Your task to perform on an android device: Open Google Maps and go to "Timeline" Image 0: 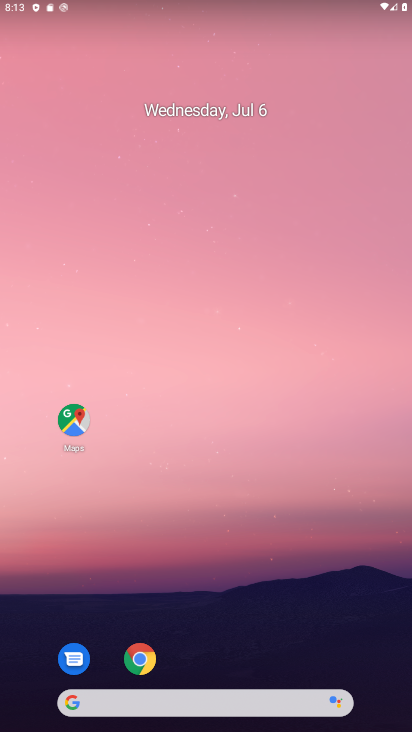
Step 0: drag from (215, 641) to (253, 124)
Your task to perform on an android device: Open Google Maps and go to "Timeline" Image 1: 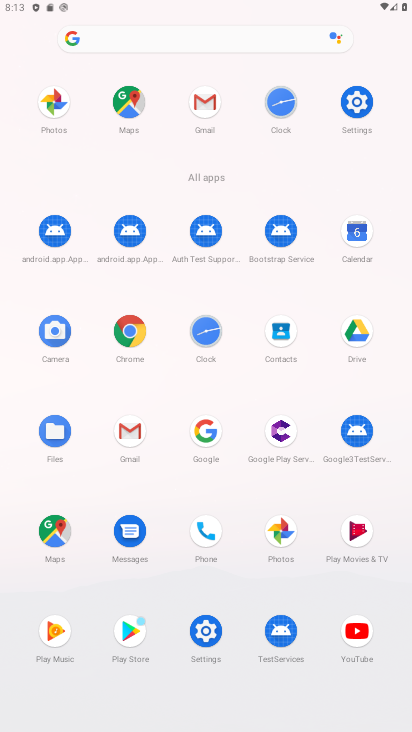
Step 1: click (51, 523)
Your task to perform on an android device: Open Google Maps and go to "Timeline" Image 2: 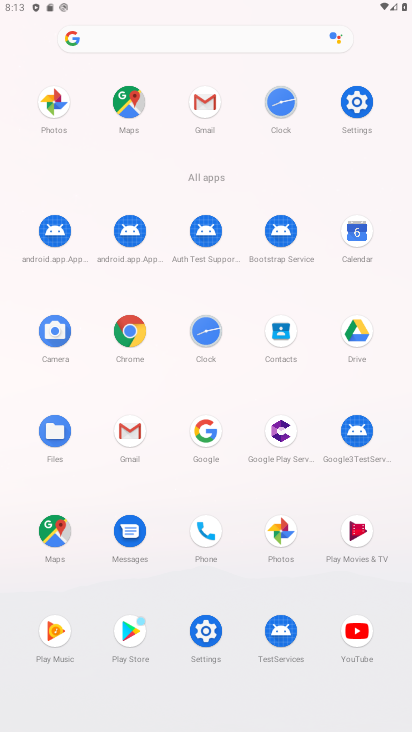
Step 2: click (51, 523)
Your task to perform on an android device: Open Google Maps and go to "Timeline" Image 3: 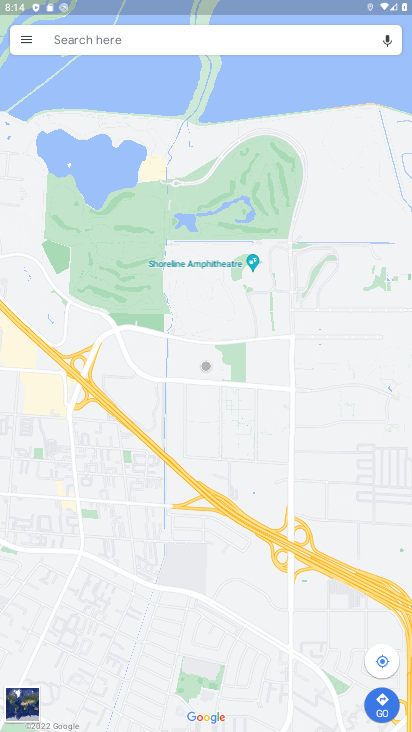
Step 3: click (22, 41)
Your task to perform on an android device: Open Google Maps and go to "Timeline" Image 4: 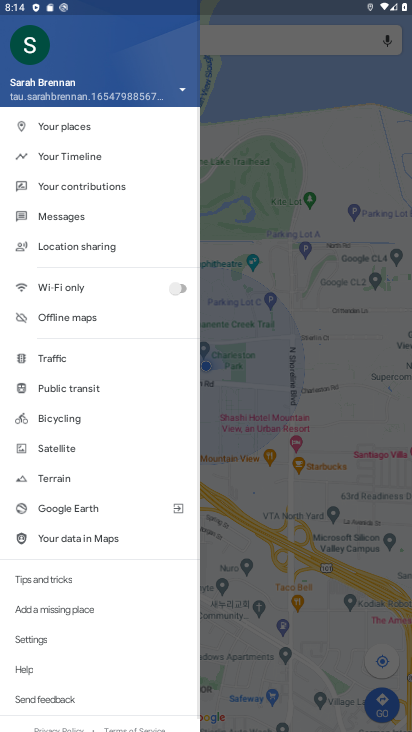
Step 4: click (73, 155)
Your task to perform on an android device: Open Google Maps and go to "Timeline" Image 5: 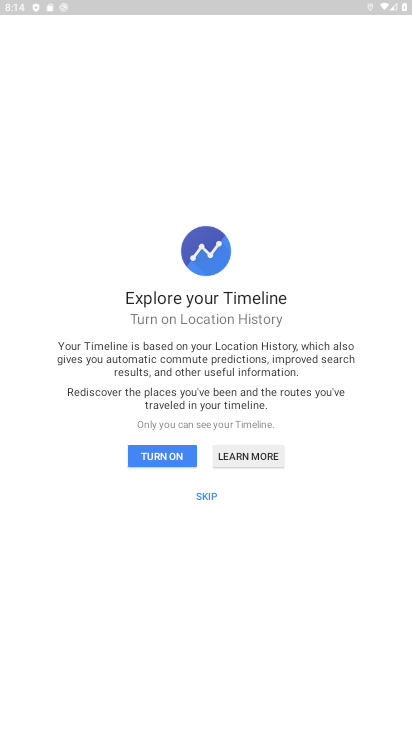
Step 5: click (198, 495)
Your task to perform on an android device: Open Google Maps and go to "Timeline" Image 6: 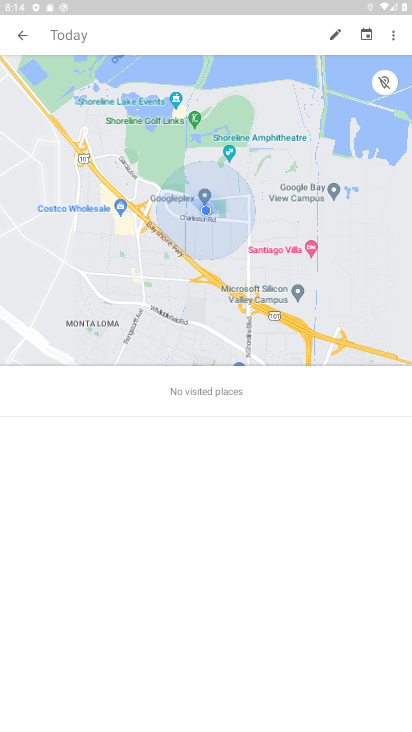
Step 6: drag from (199, 449) to (243, 0)
Your task to perform on an android device: Open Google Maps and go to "Timeline" Image 7: 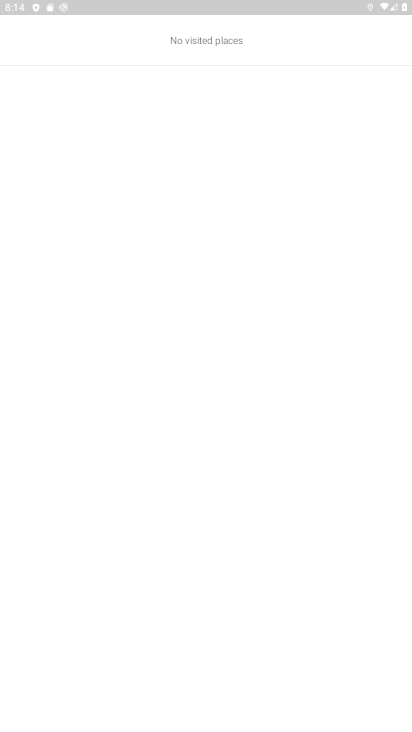
Step 7: drag from (267, 167) to (349, 557)
Your task to perform on an android device: Open Google Maps and go to "Timeline" Image 8: 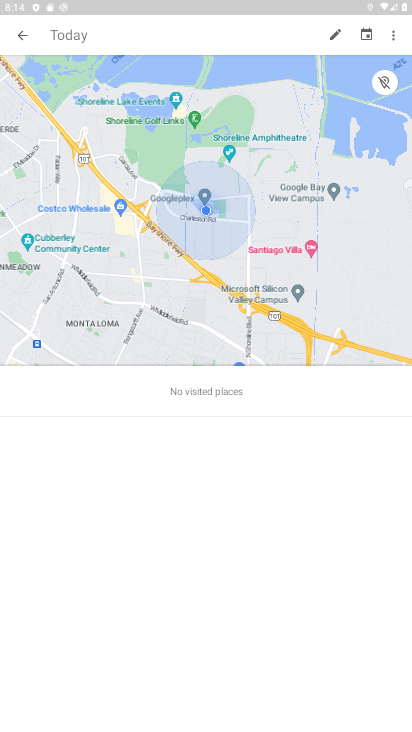
Step 8: click (25, 35)
Your task to perform on an android device: Open Google Maps and go to "Timeline" Image 9: 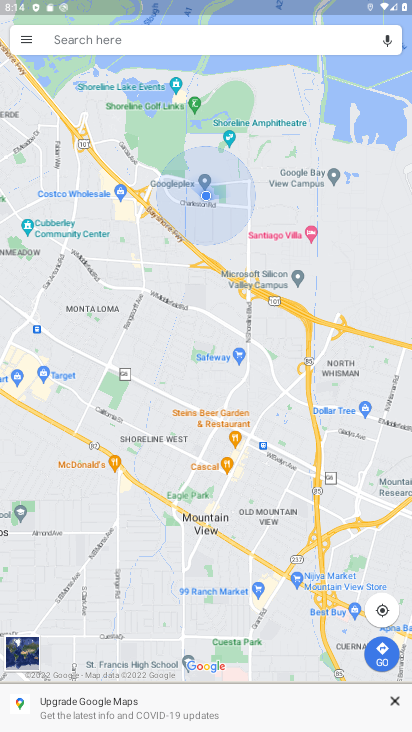
Step 9: click (17, 38)
Your task to perform on an android device: Open Google Maps and go to "Timeline" Image 10: 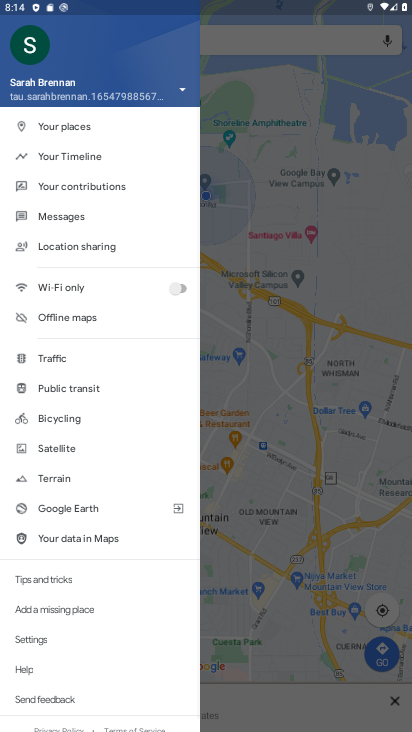
Step 10: click (69, 152)
Your task to perform on an android device: Open Google Maps and go to "Timeline" Image 11: 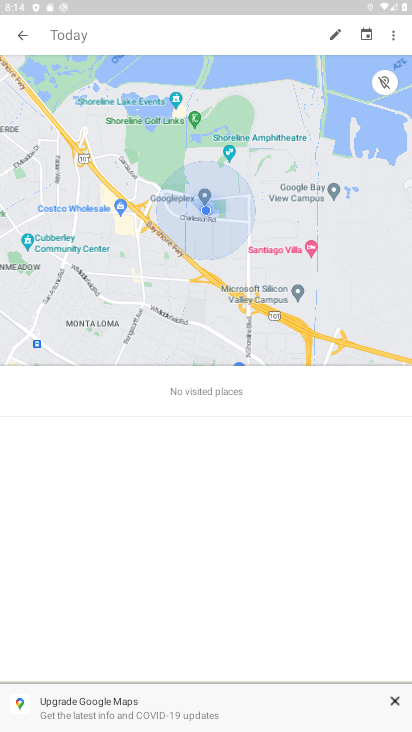
Step 11: task complete